Your task to perform on an android device: read, delete, or share a saved page in the chrome app Image 0: 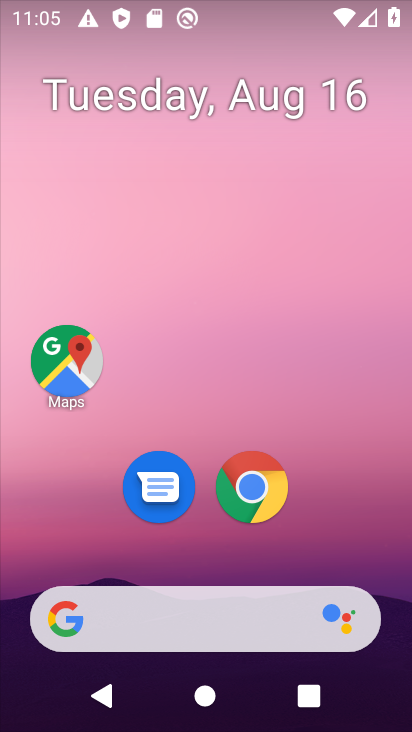
Step 0: click (270, 491)
Your task to perform on an android device: read, delete, or share a saved page in the chrome app Image 1: 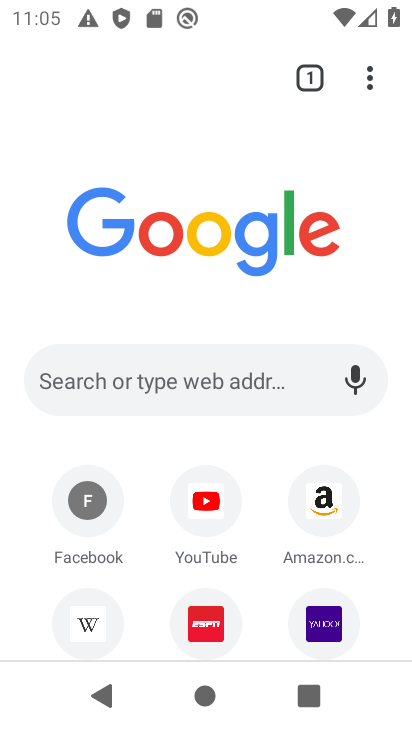
Step 1: click (376, 75)
Your task to perform on an android device: read, delete, or share a saved page in the chrome app Image 2: 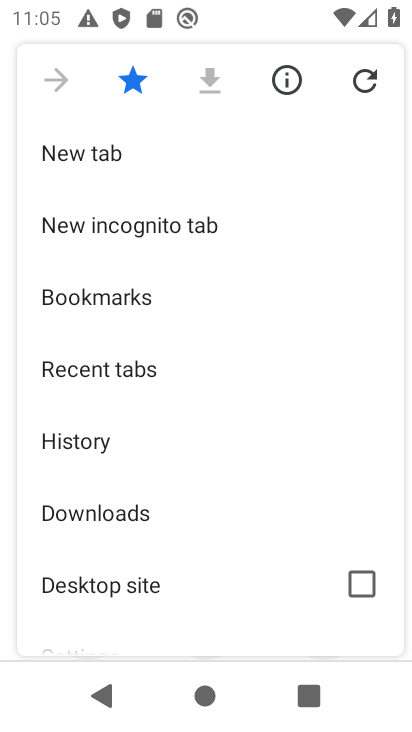
Step 2: click (158, 522)
Your task to perform on an android device: read, delete, or share a saved page in the chrome app Image 3: 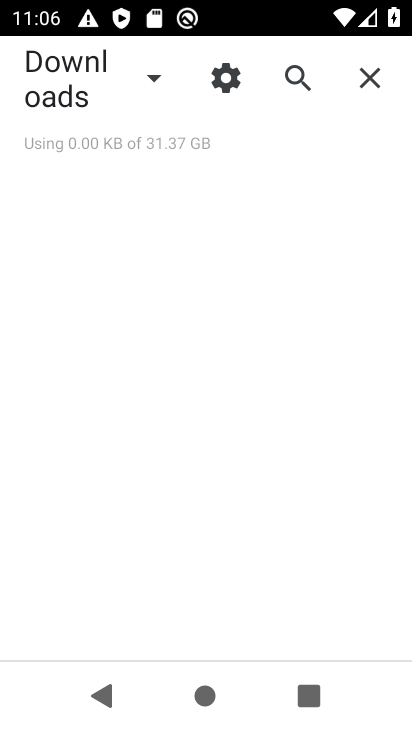
Step 3: task complete